Your task to perform on an android device: Open wifi settings Image 0: 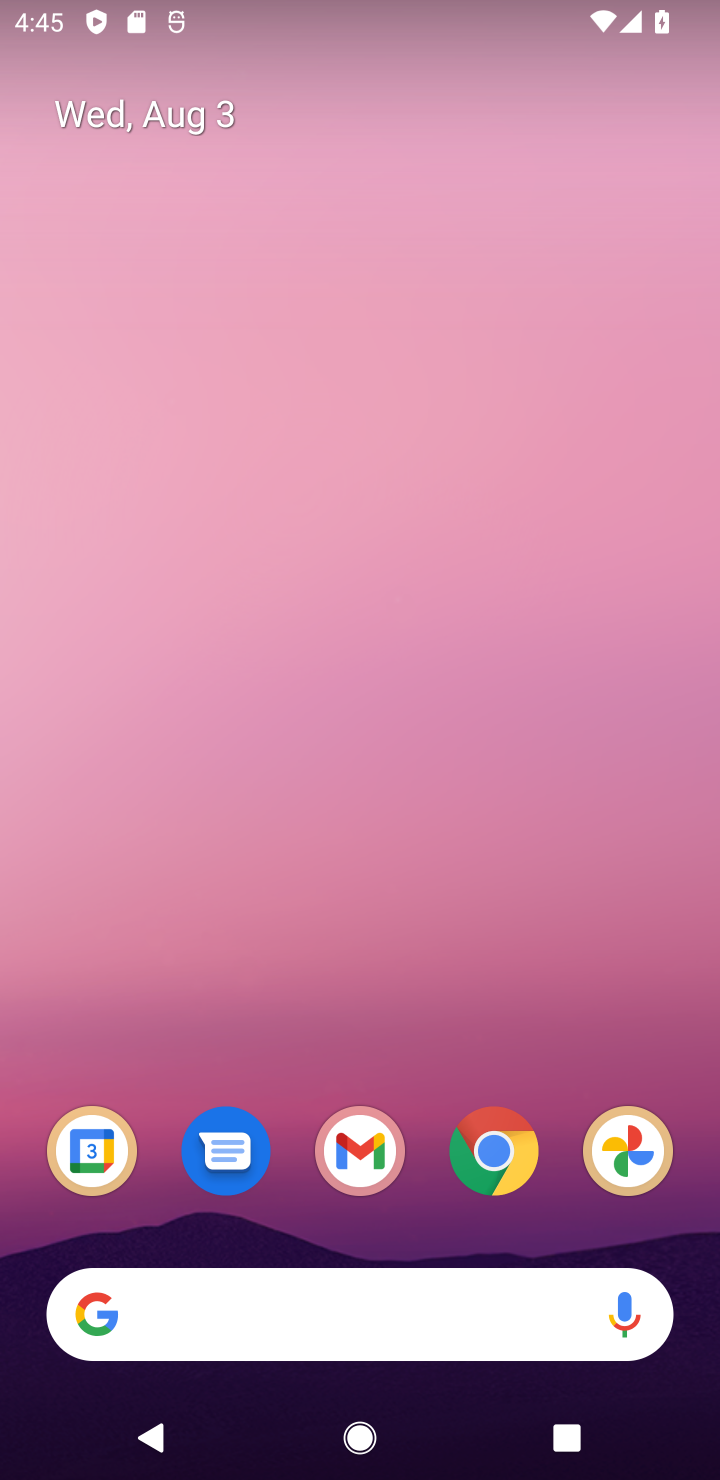
Step 0: drag from (280, 13) to (561, 739)
Your task to perform on an android device: Open wifi settings Image 1: 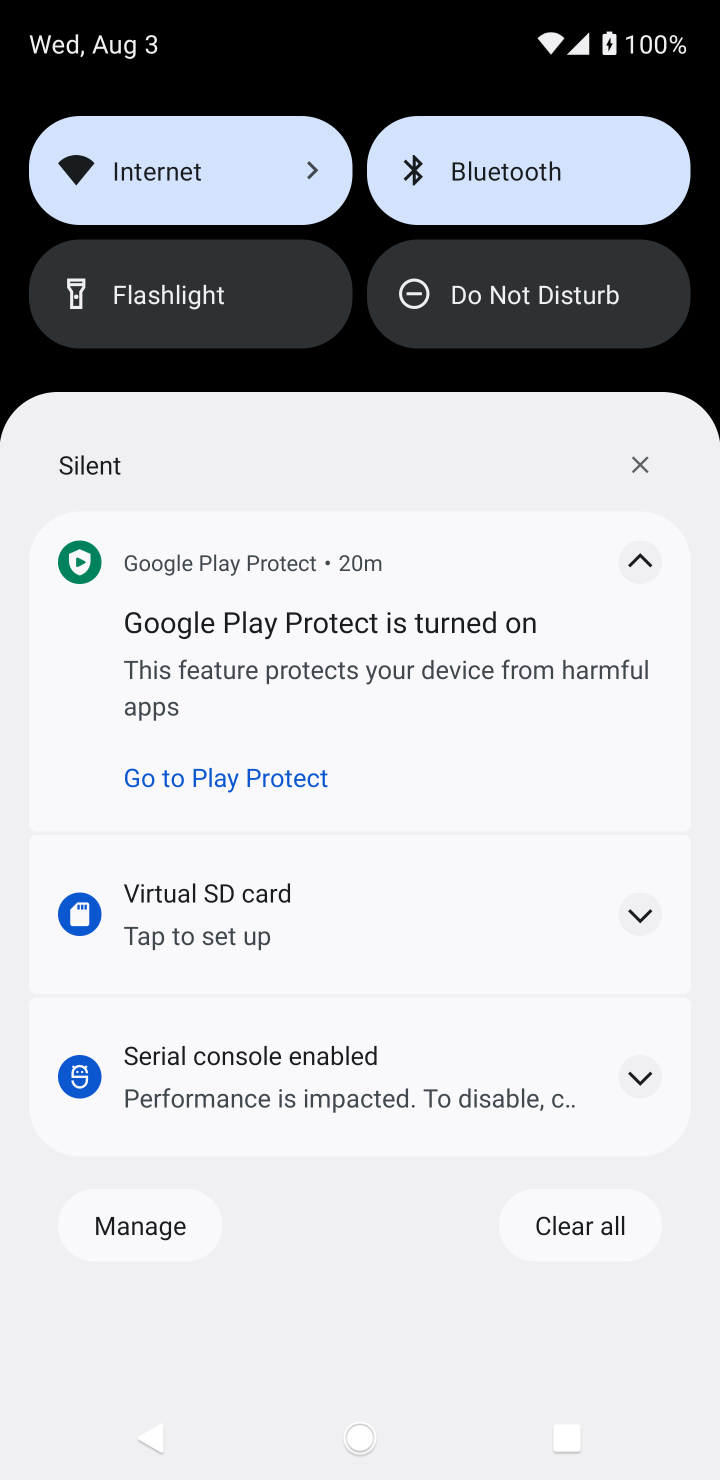
Step 1: drag from (388, 40) to (471, 294)
Your task to perform on an android device: Open wifi settings Image 2: 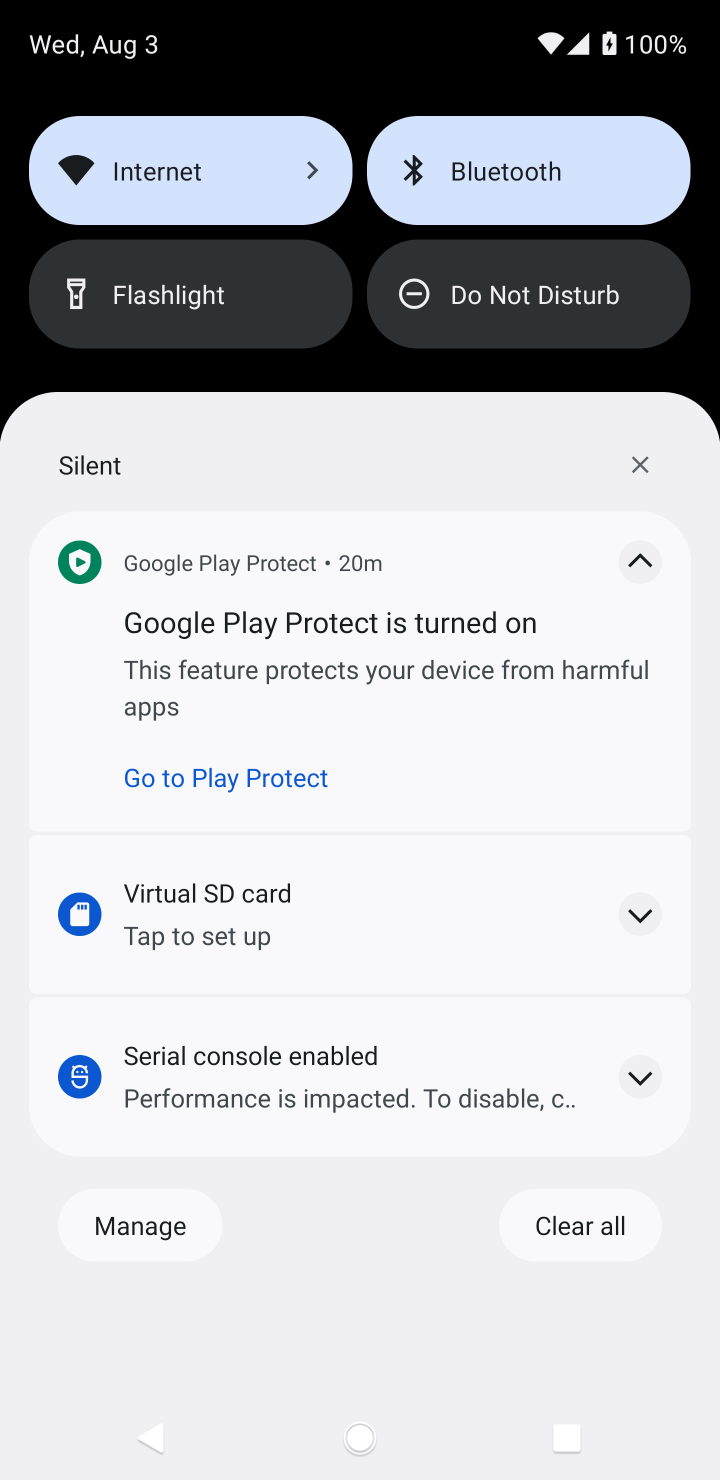
Step 2: click (247, 172)
Your task to perform on an android device: Open wifi settings Image 3: 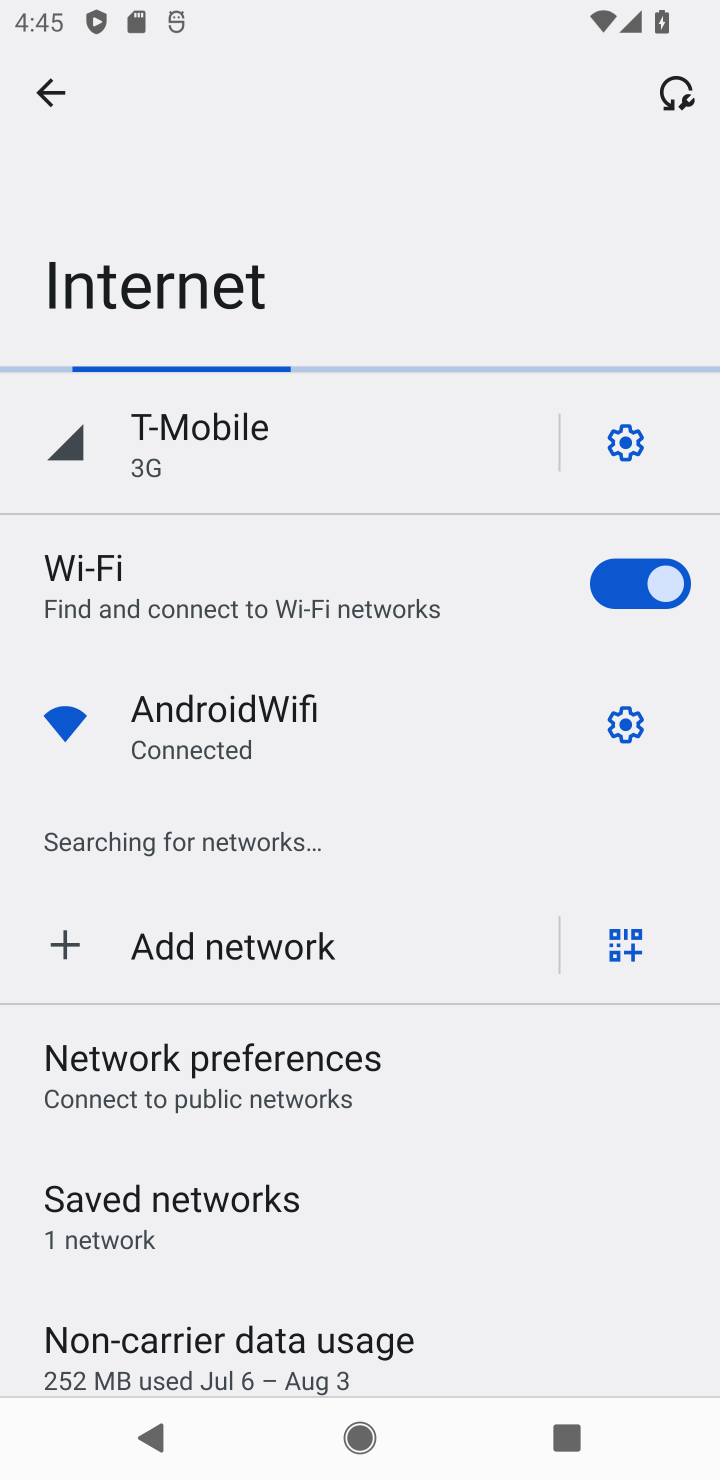
Step 3: task complete